Your task to perform on an android device: check storage Image 0: 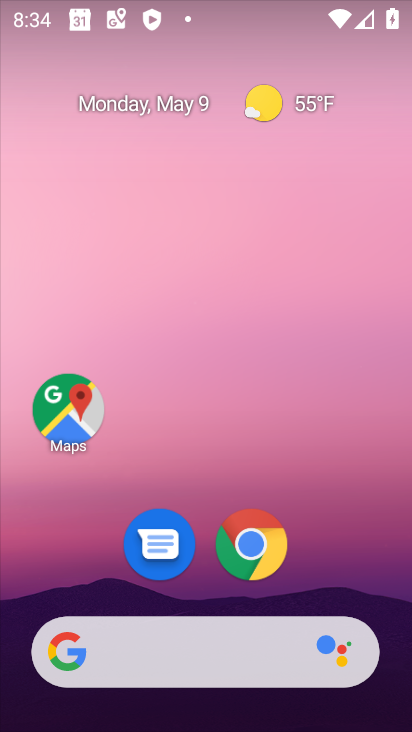
Step 0: drag from (192, 589) to (174, 139)
Your task to perform on an android device: check storage Image 1: 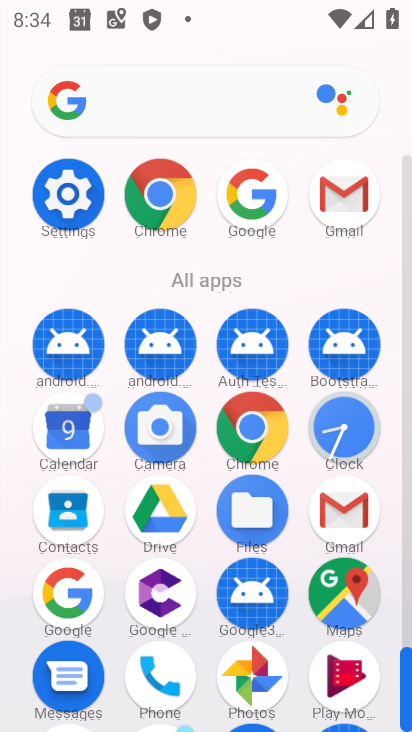
Step 1: click (90, 204)
Your task to perform on an android device: check storage Image 2: 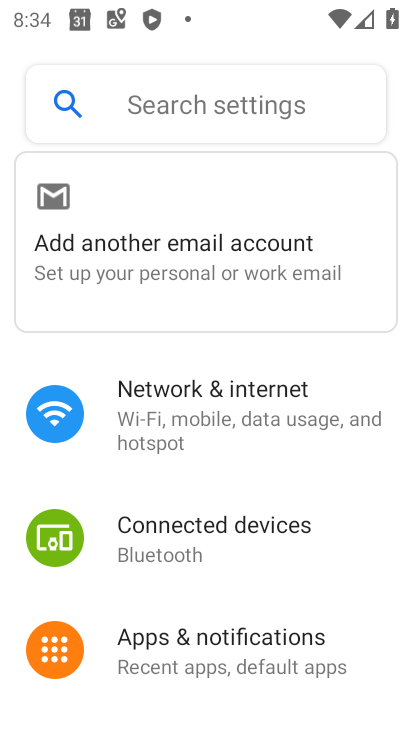
Step 2: drag from (224, 608) to (236, 201)
Your task to perform on an android device: check storage Image 3: 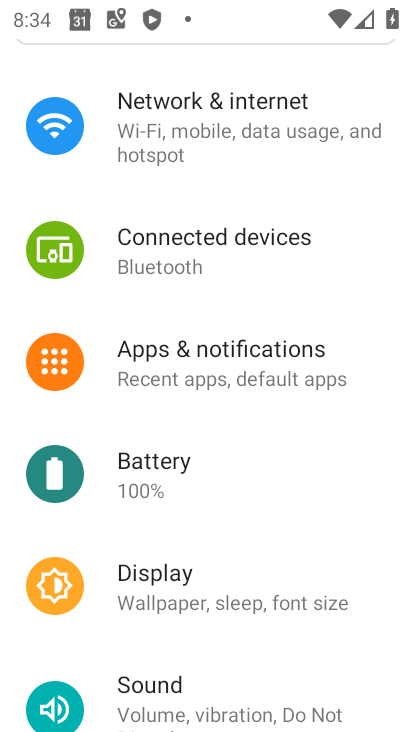
Step 3: drag from (203, 590) to (224, 259)
Your task to perform on an android device: check storage Image 4: 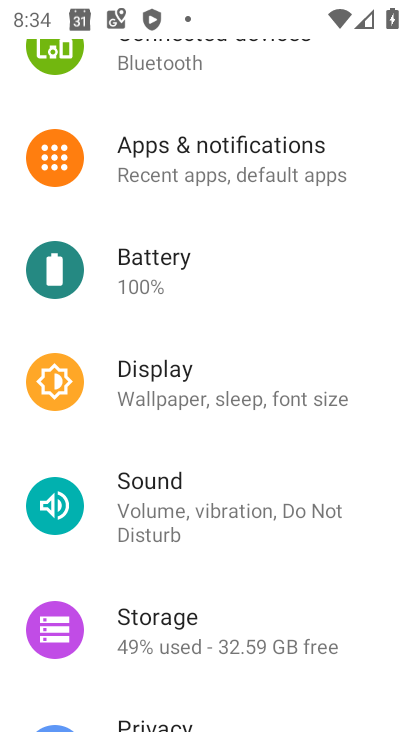
Step 4: drag from (187, 540) to (220, 279)
Your task to perform on an android device: check storage Image 5: 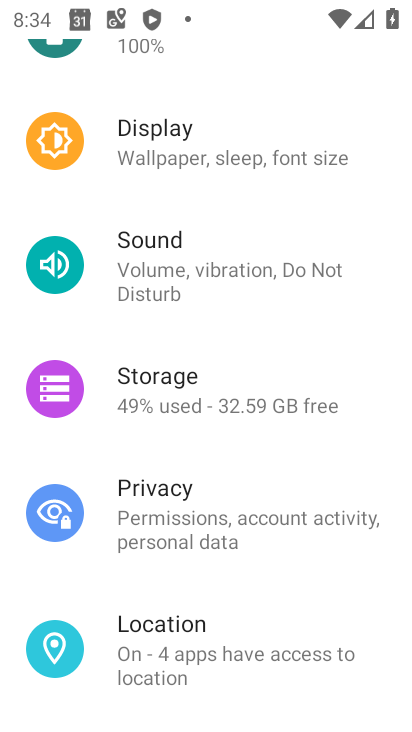
Step 5: click (176, 390)
Your task to perform on an android device: check storage Image 6: 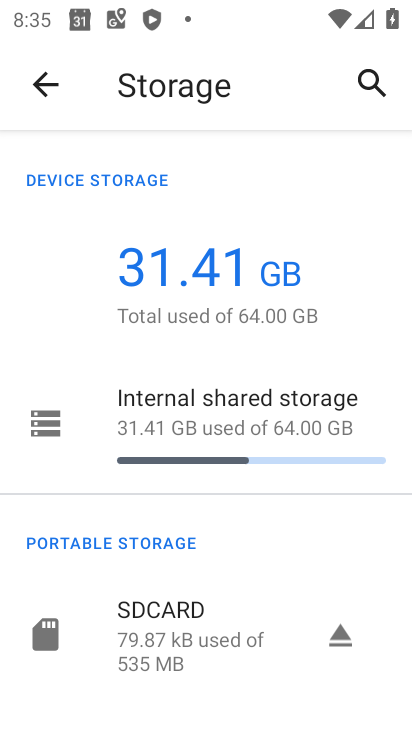
Step 6: task complete